Your task to perform on an android device: toggle airplane mode Image 0: 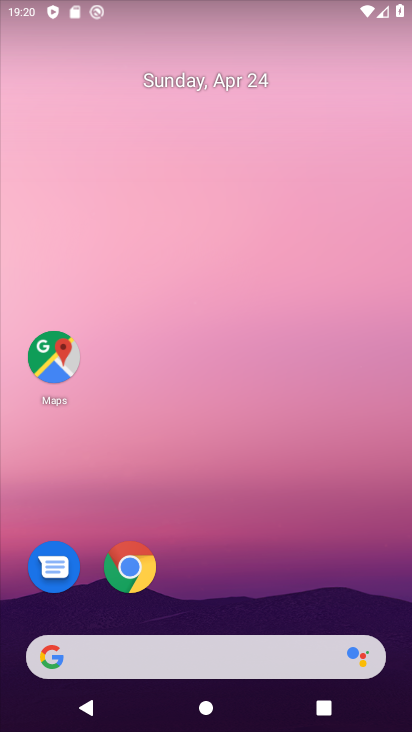
Step 0: drag from (216, 671) to (176, 186)
Your task to perform on an android device: toggle airplane mode Image 1: 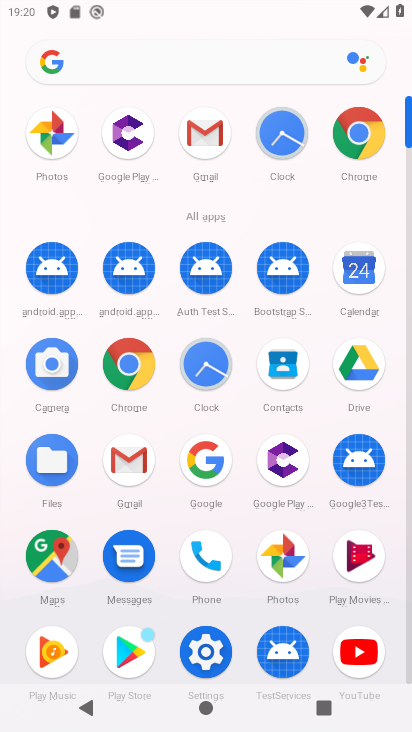
Step 1: click (205, 637)
Your task to perform on an android device: toggle airplane mode Image 2: 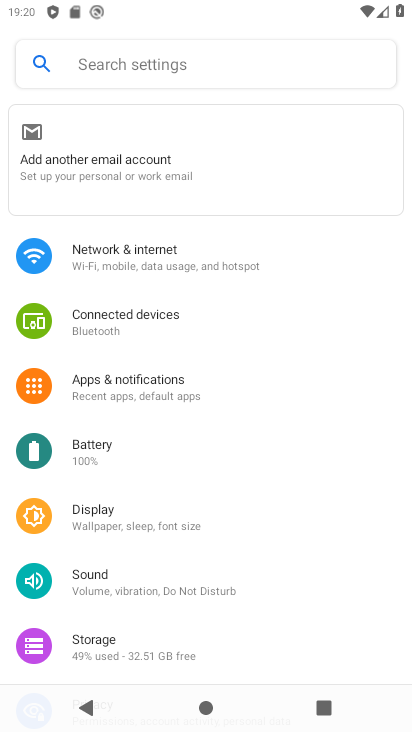
Step 2: click (200, 256)
Your task to perform on an android device: toggle airplane mode Image 3: 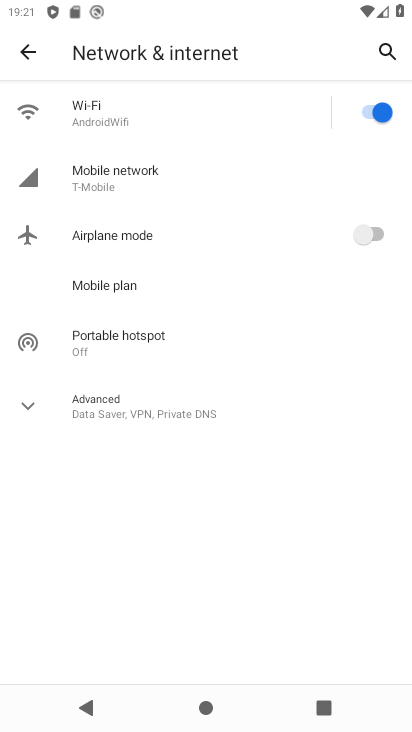
Step 3: click (152, 236)
Your task to perform on an android device: toggle airplane mode Image 4: 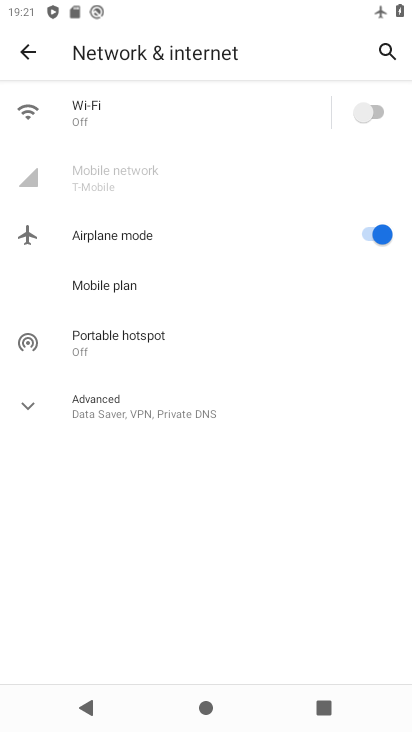
Step 4: drag from (127, 529) to (172, 399)
Your task to perform on an android device: toggle airplane mode Image 5: 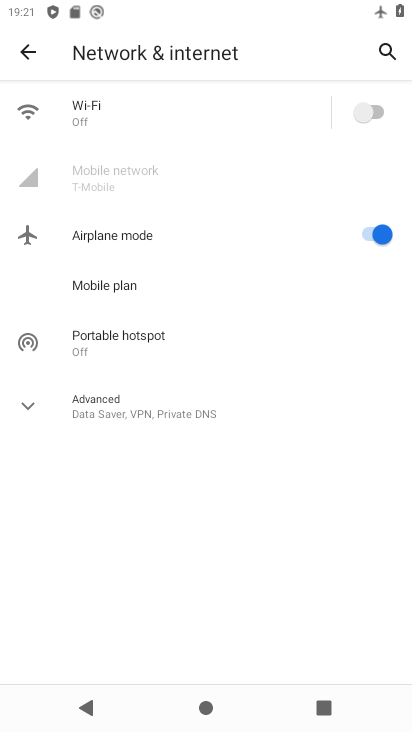
Step 5: click (180, 236)
Your task to perform on an android device: toggle airplane mode Image 6: 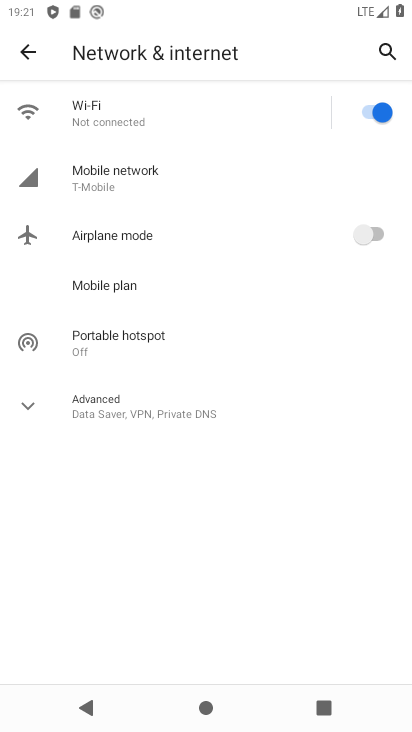
Step 6: task complete